Your task to perform on an android device: toggle airplane mode Image 0: 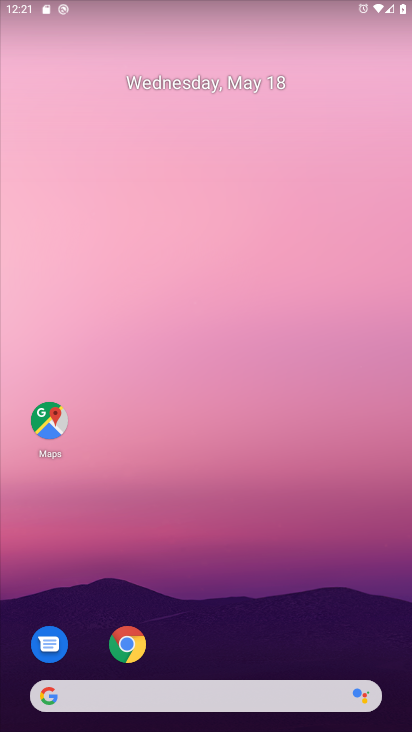
Step 0: drag from (255, 1) to (225, 452)
Your task to perform on an android device: toggle airplane mode Image 1: 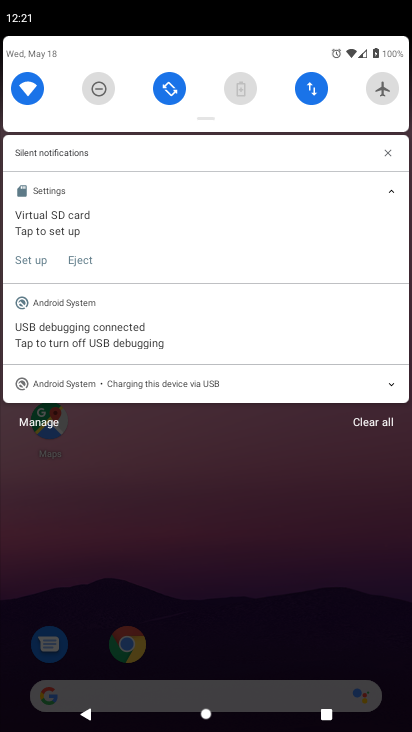
Step 1: click (385, 77)
Your task to perform on an android device: toggle airplane mode Image 2: 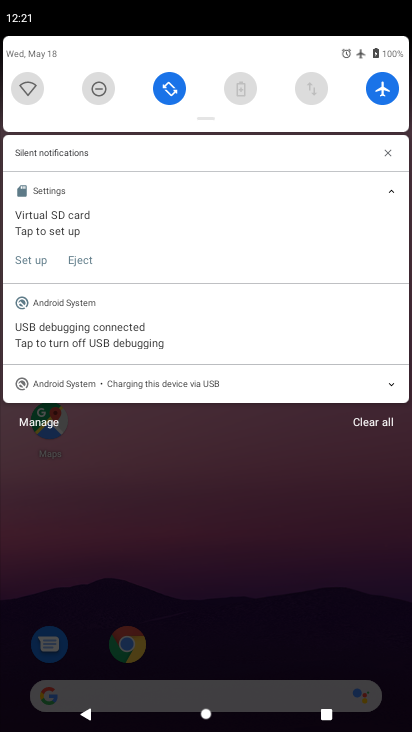
Step 2: task complete